Your task to perform on an android device: Add "rayovac triple a" to the cart on target.com, then select checkout. Image 0: 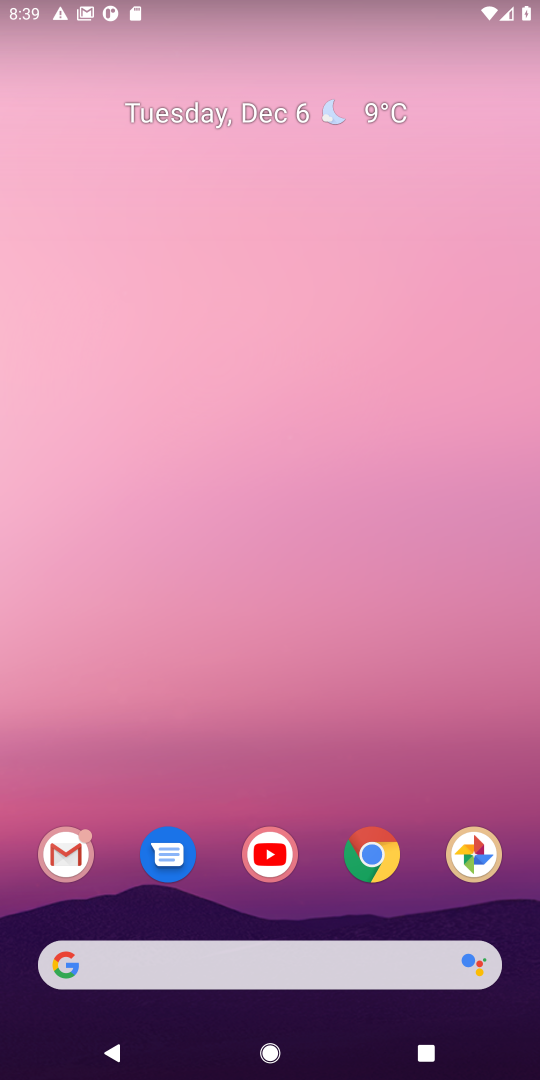
Step 0: click (365, 849)
Your task to perform on an android device: Add "rayovac triple a" to the cart on target.com, then select checkout. Image 1: 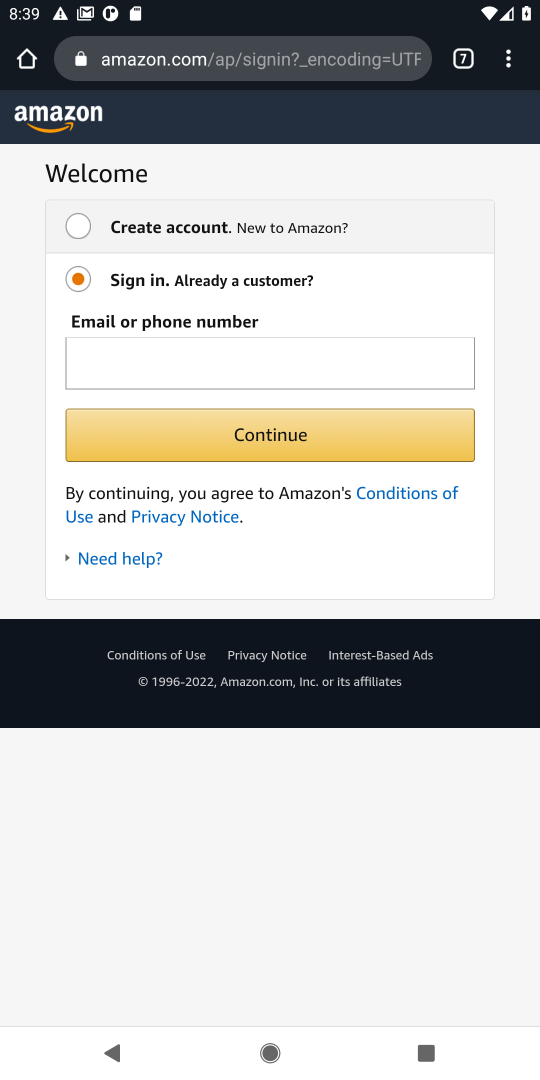
Step 1: click (460, 52)
Your task to perform on an android device: Add "rayovac triple a" to the cart on target.com, then select checkout. Image 2: 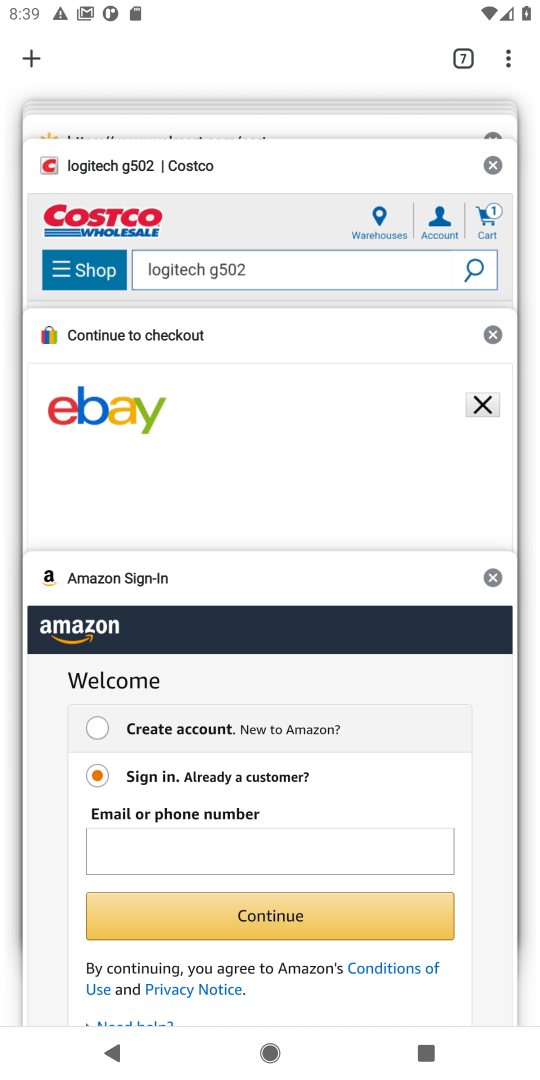
Step 2: drag from (355, 124) to (311, 632)
Your task to perform on an android device: Add "rayovac triple a" to the cart on target.com, then select checkout. Image 3: 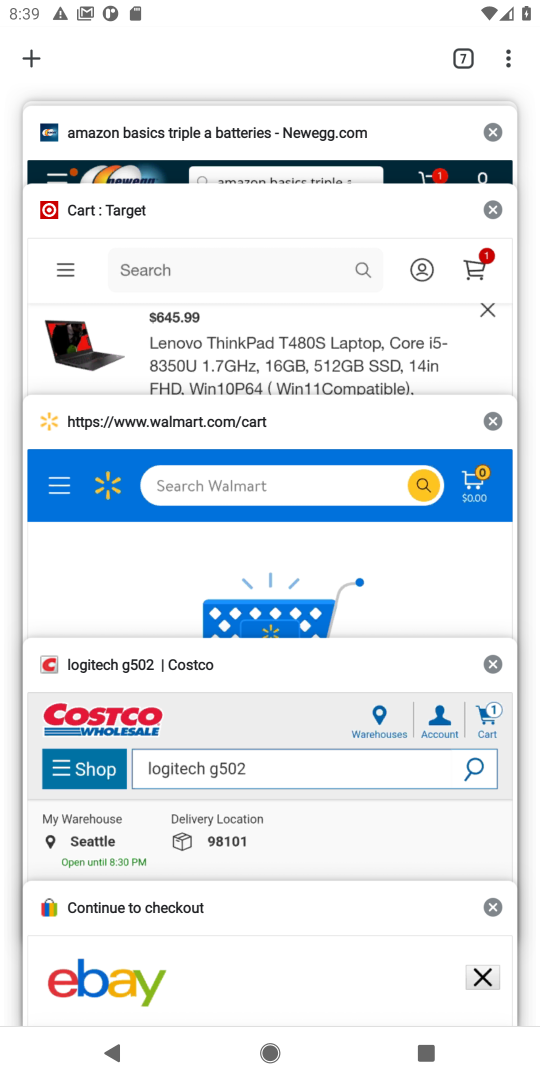
Step 3: click (271, 250)
Your task to perform on an android device: Add "rayovac triple a" to the cart on target.com, then select checkout. Image 4: 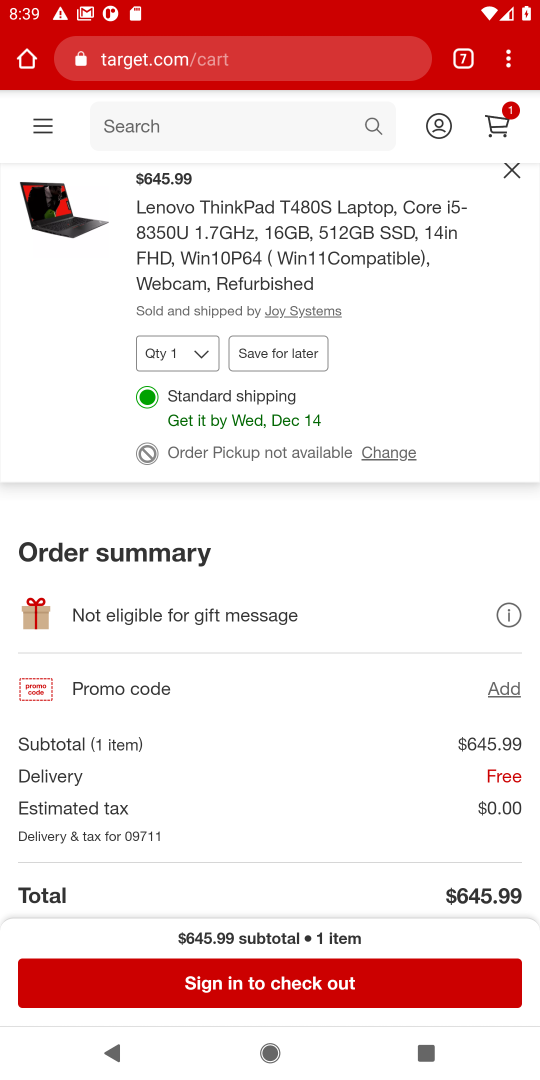
Step 4: click (268, 133)
Your task to perform on an android device: Add "rayovac triple a" to the cart on target.com, then select checkout. Image 5: 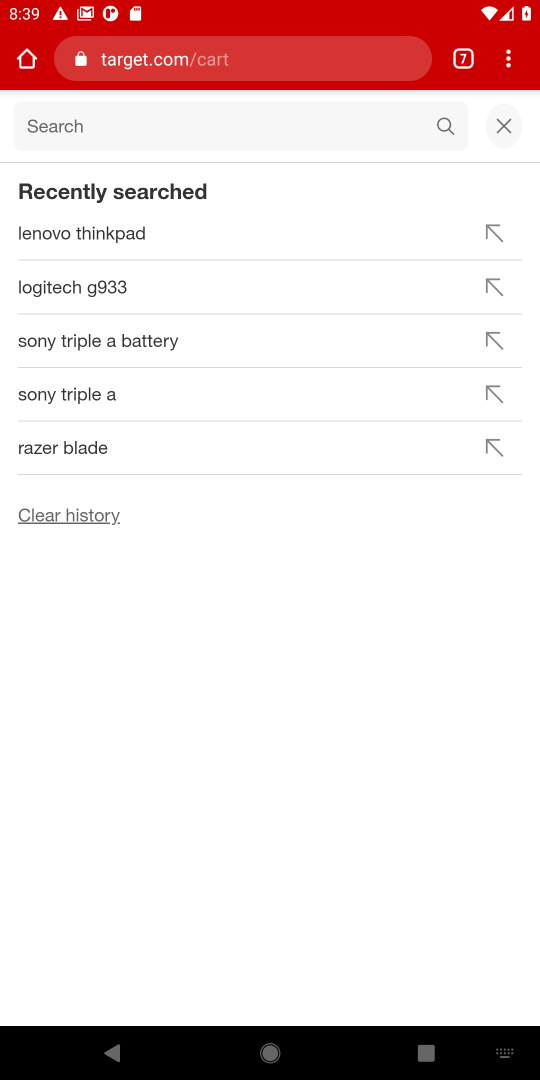
Step 5: type "rayovac triple a"
Your task to perform on an android device: Add "rayovac triple a" to the cart on target.com, then select checkout. Image 6: 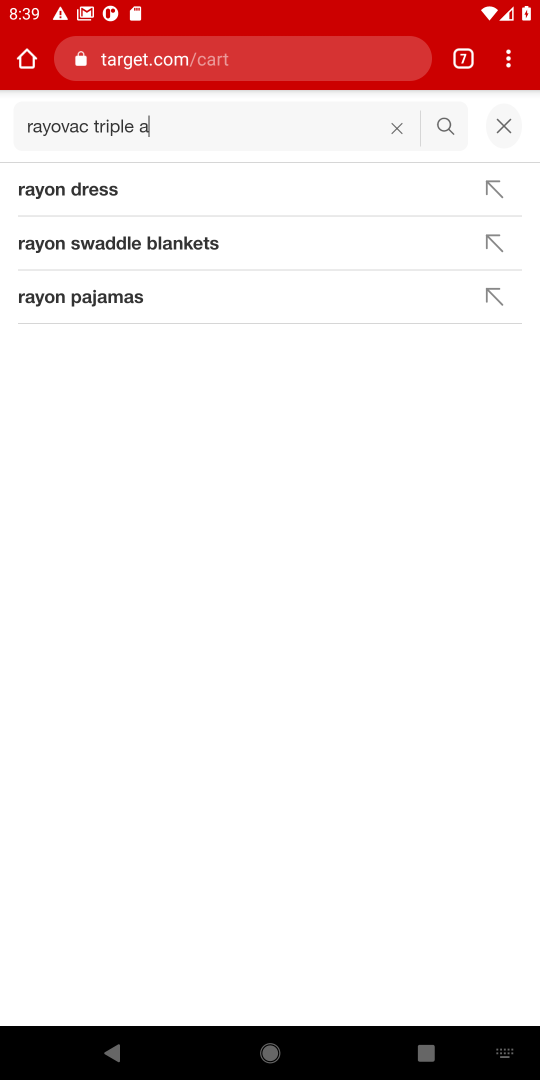
Step 6: click (443, 128)
Your task to perform on an android device: Add "rayovac triple a" to the cart on target.com, then select checkout. Image 7: 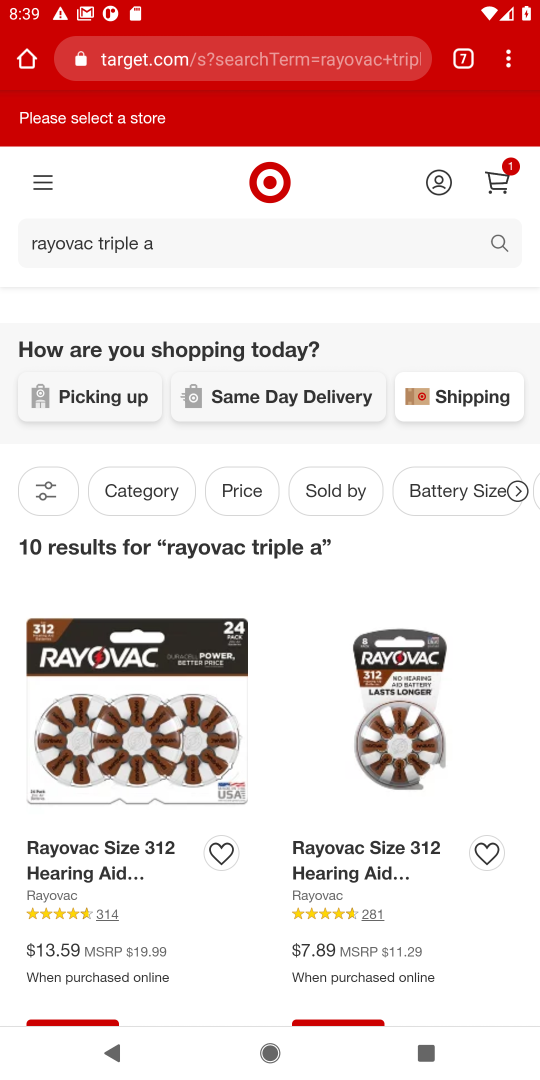
Step 7: drag from (223, 905) to (311, 473)
Your task to perform on an android device: Add "rayovac triple a" to the cart on target.com, then select checkout. Image 8: 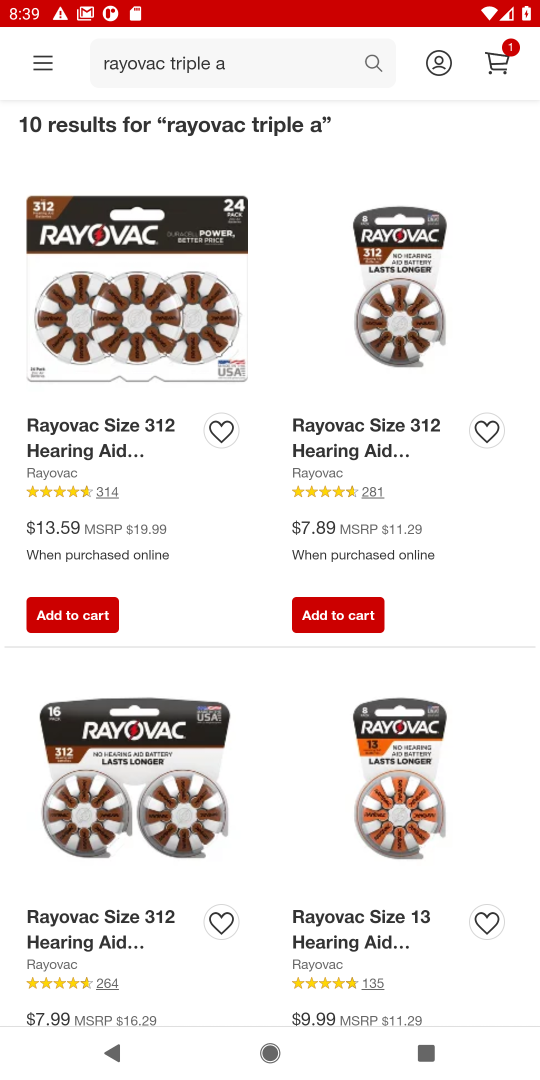
Step 8: drag from (248, 377) to (252, 810)
Your task to perform on an android device: Add "rayovac triple a" to the cart on target.com, then select checkout. Image 9: 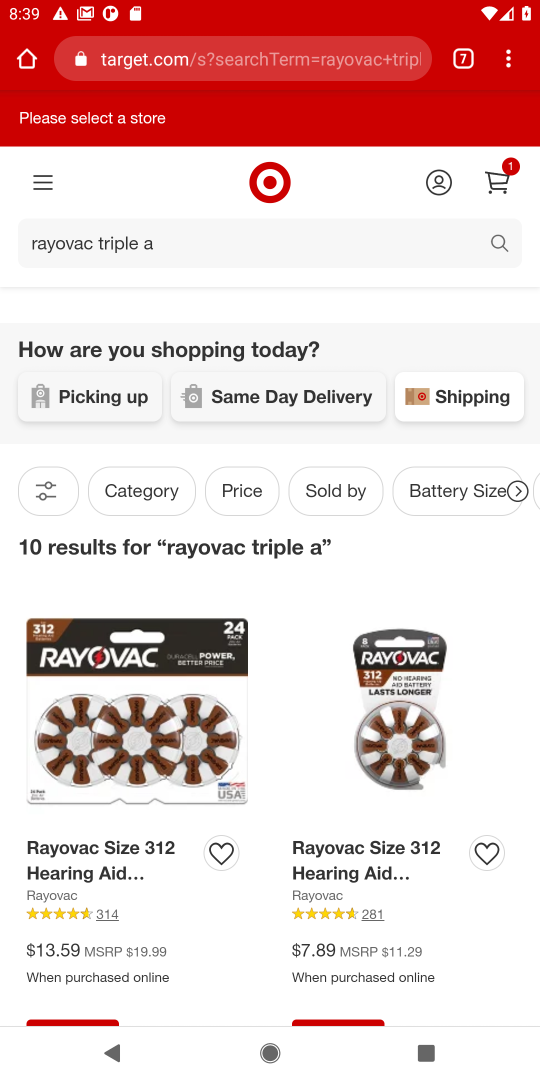
Step 9: click (232, 240)
Your task to perform on an android device: Add "rayovac triple a" to the cart on target.com, then select checkout. Image 10: 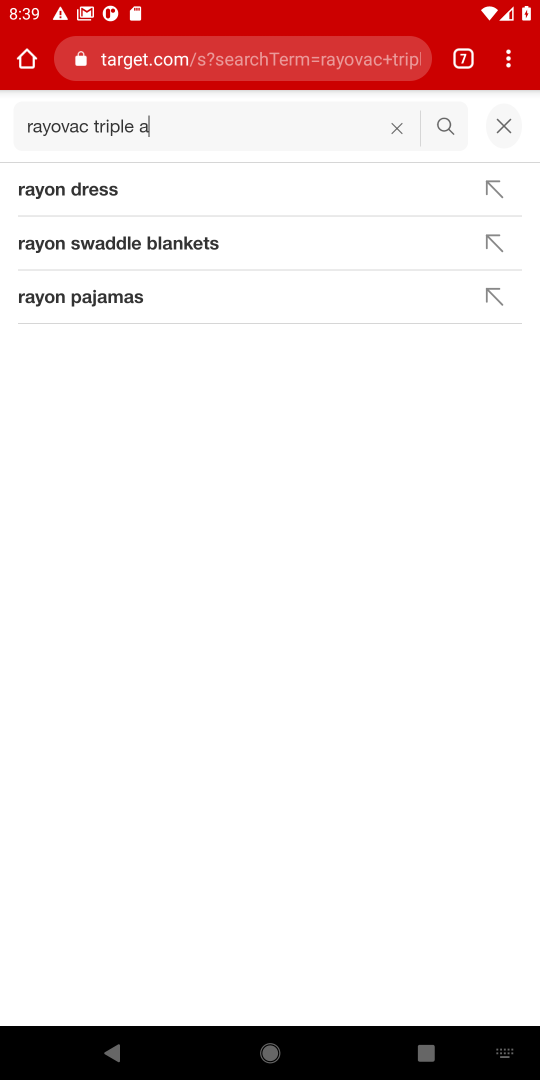
Step 10: type " battery"
Your task to perform on an android device: Add "rayovac triple a" to the cart on target.com, then select checkout. Image 11: 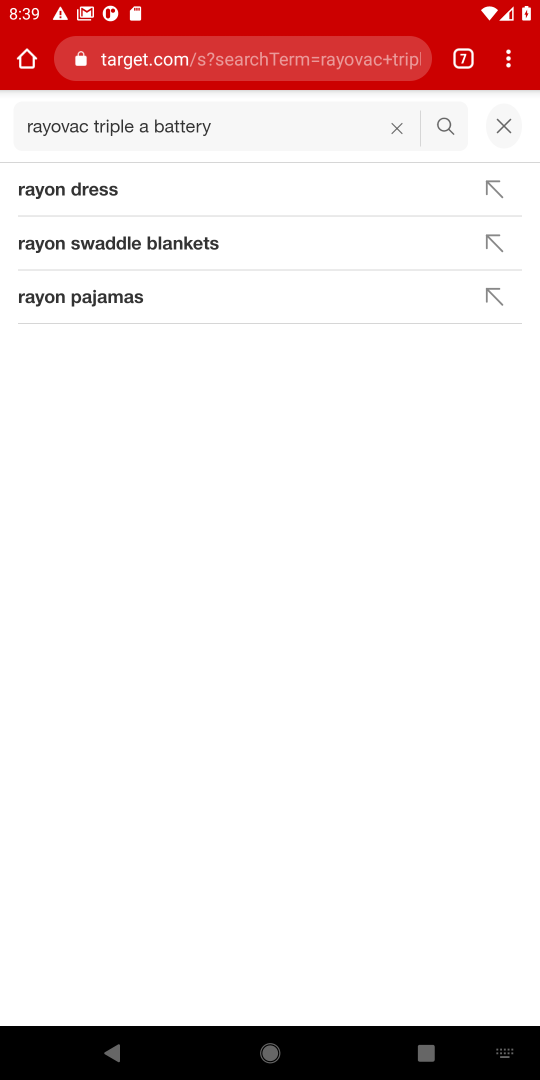
Step 11: click (447, 120)
Your task to perform on an android device: Add "rayovac triple a" to the cart on target.com, then select checkout. Image 12: 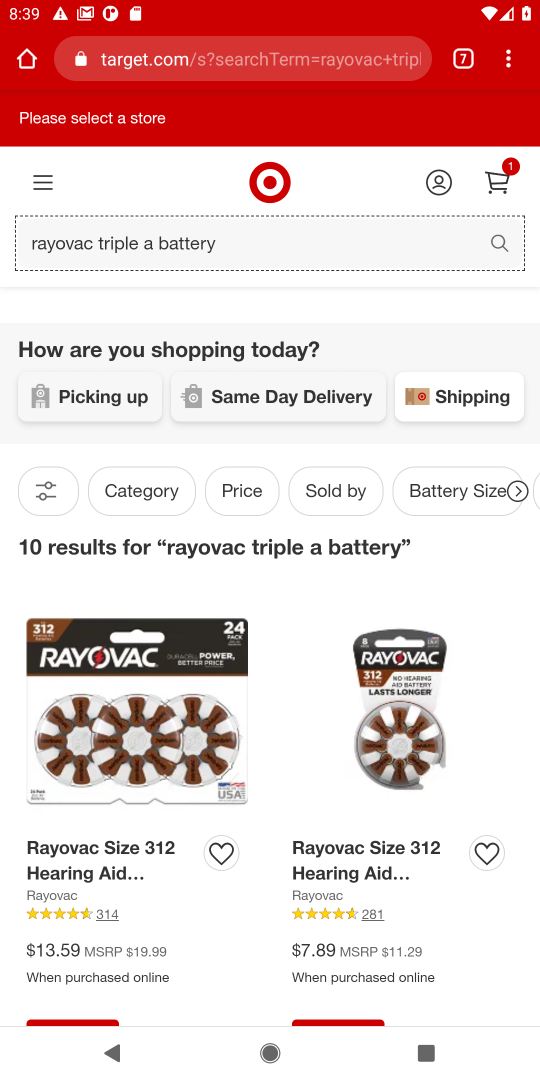
Step 12: drag from (155, 992) to (303, 440)
Your task to perform on an android device: Add "rayovac triple a" to the cart on target.com, then select checkout. Image 13: 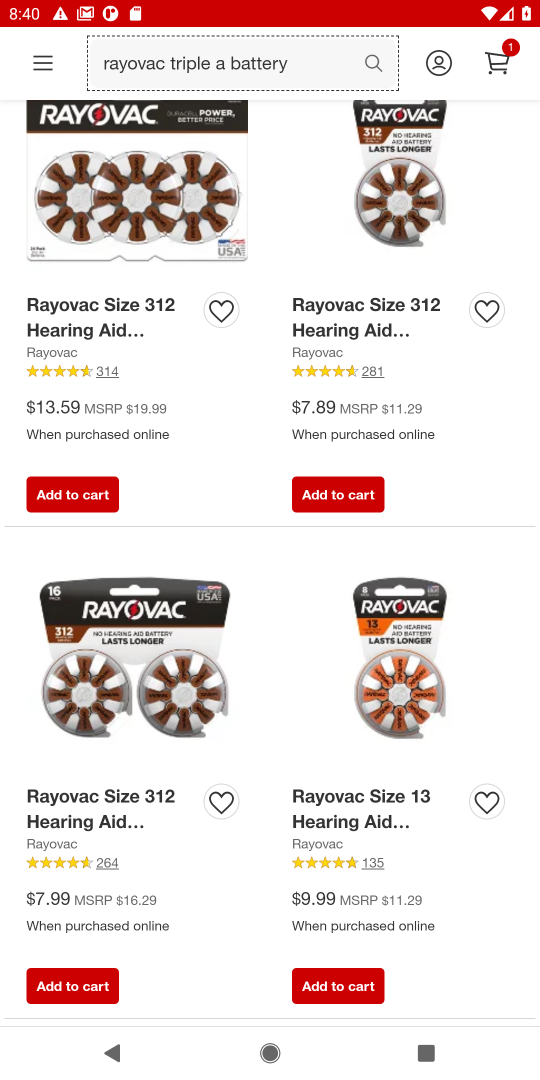
Step 13: drag from (215, 782) to (344, 332)
Your task to perform on an android device: Add "rayovac triple a" to the cart on target.com, then select checkout. Image 14: 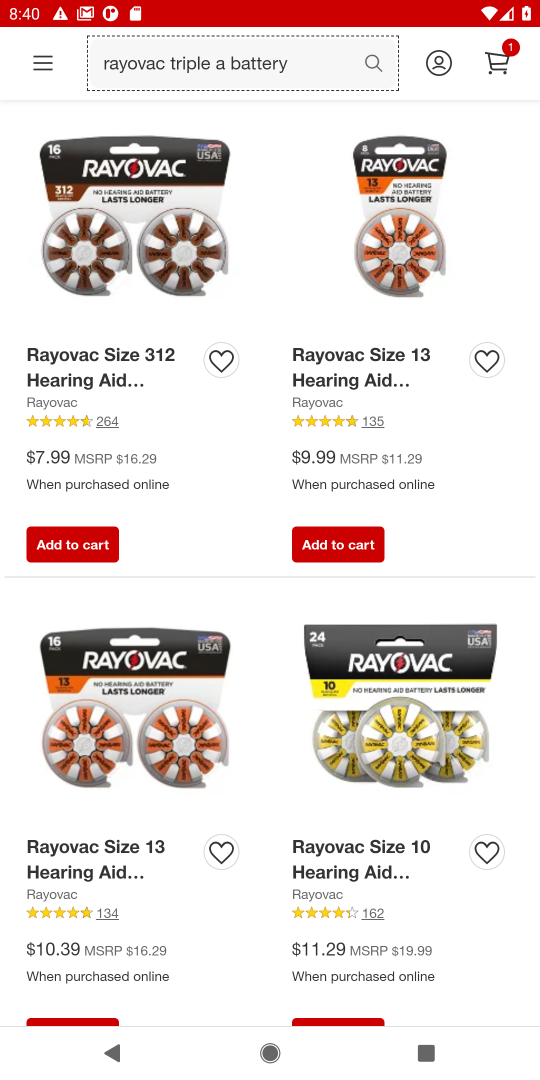
Step 14: drag from (303, 698) to (448, 380)
Your task to perform on an android device: Add "rayovac triple a" to the cart on target.com, then select checkout. Image 15: 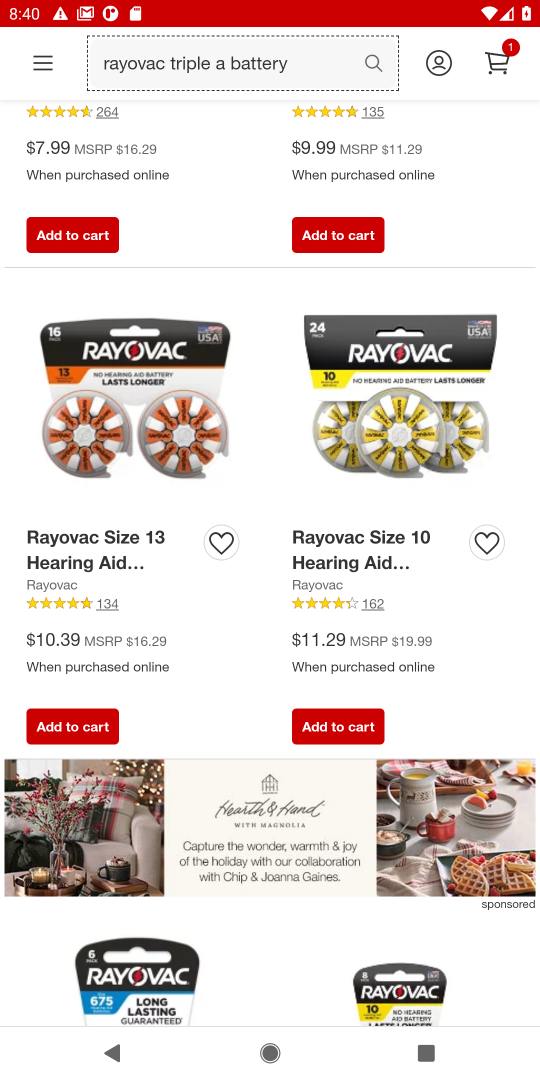
Step 15: drag from (252, 834) to (324, 471)
Your task to perform on an android device: Add "rayovac triple a" to the cart on target.com, then select checkout. Image 16: 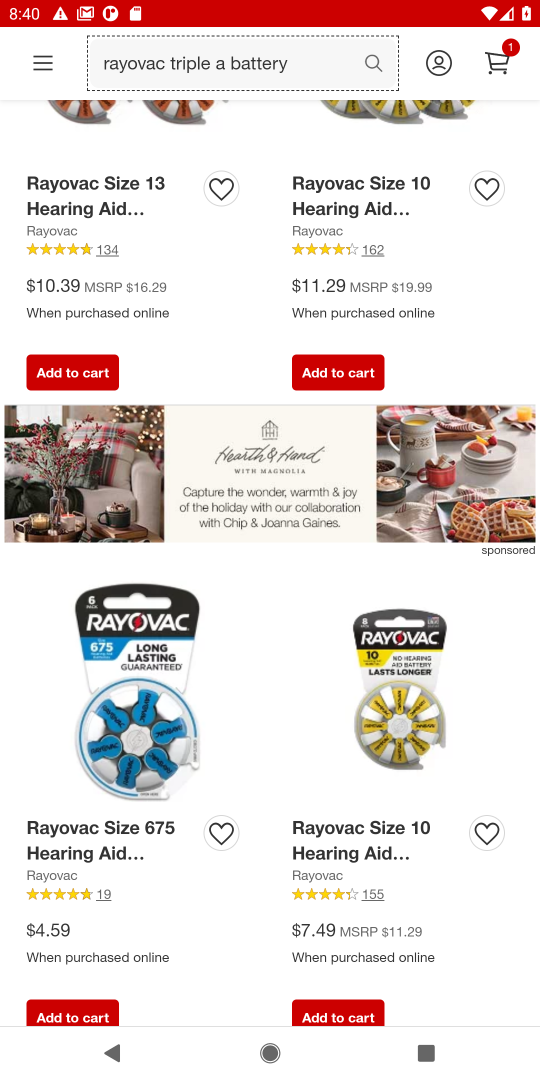
Step 16: drag from (255, 331) to (211, 921)
Your task to perform on an android device: Add "rayovac triple a" to the cart on target.com, then select checkout. Image 17: 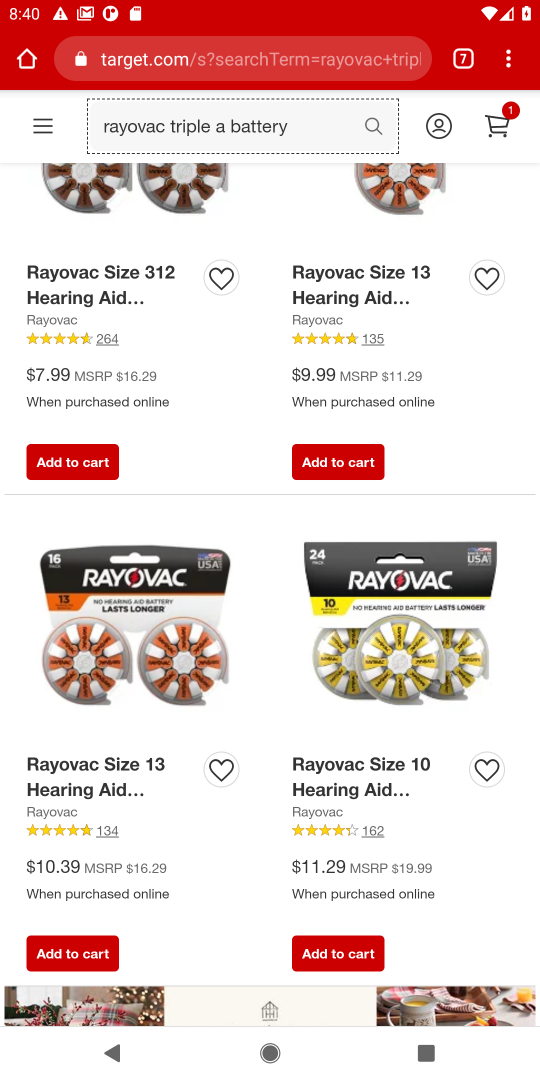
Step 17: click (364, 125)
Your task to perform on an android device: Add "rayovac triple a" to the cart on target.com, then select checkout. Image 18: 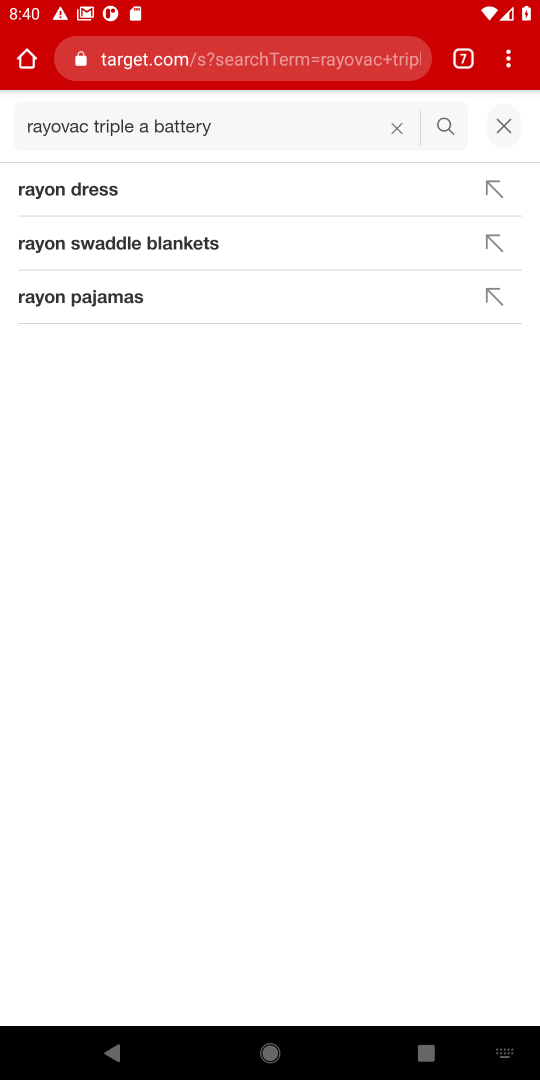
Step 18: click (439, 126)
Your task to perform on an android device: Add "rayovac triple a" to the cart on target.com, then select checkout. Image 19: 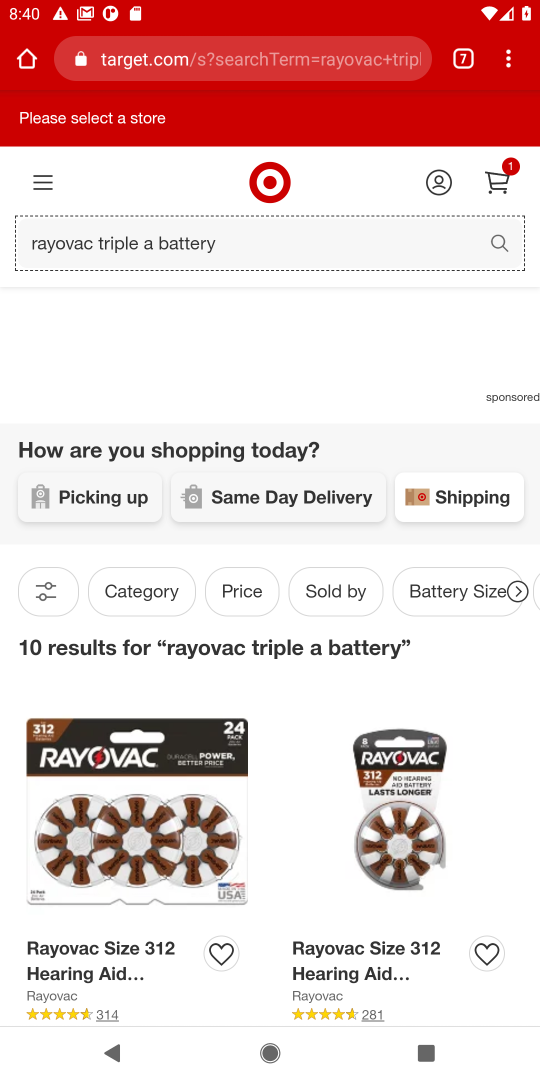
Step 19: click (111, 944)
Your task to perform on an android device: Add "rayovac triple a" to the cart on target.com, then select checkout. Image 20: 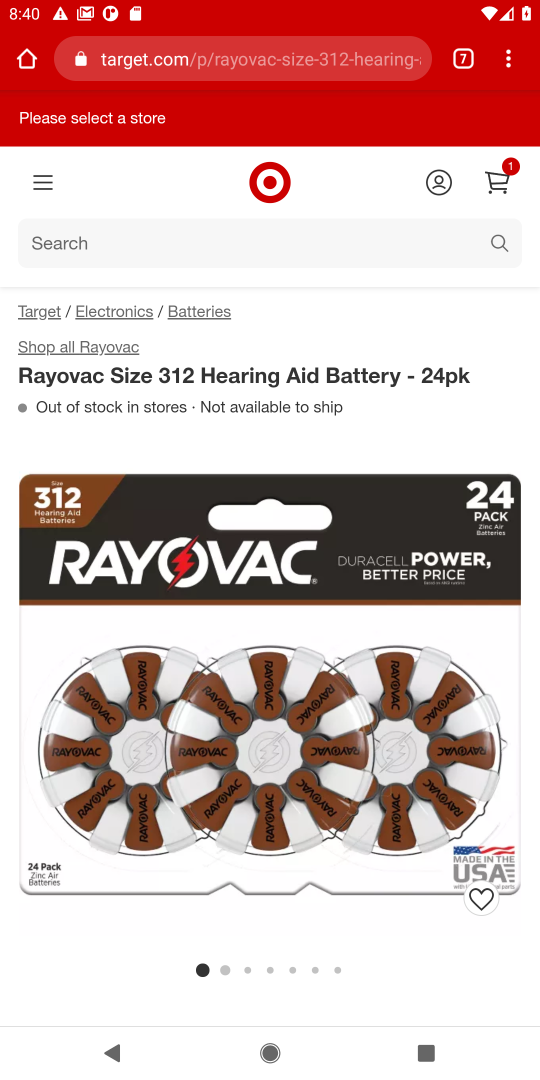
Step 20: drag from (268, 930) to (511, 210)
Your task to perform on an android device: Add "rayovac triple a" to the cart on target.com, then select checkout. Image 21: 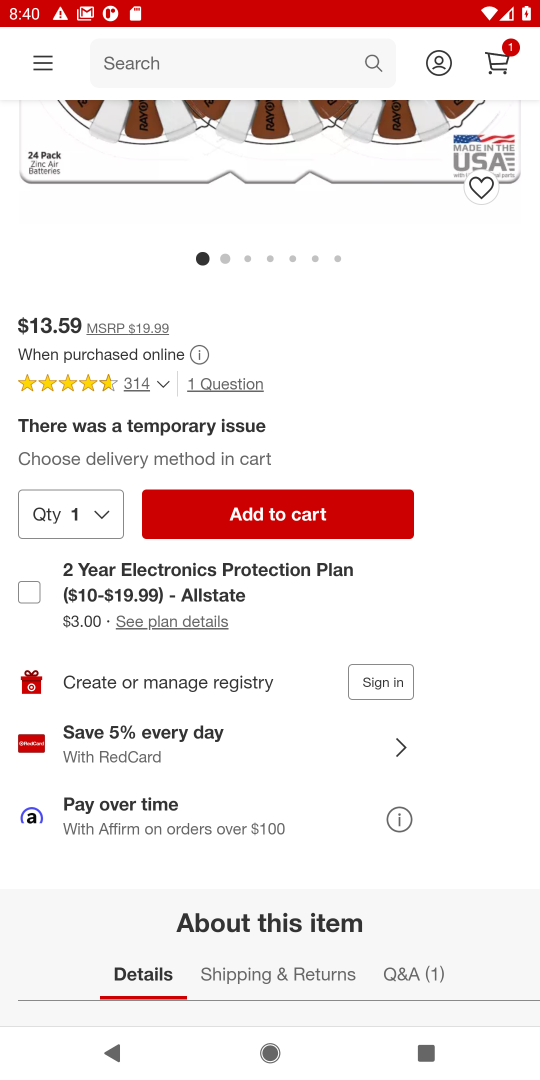
Step 21: click (320, 506)
Your task to perform on an android device: Add "rayovac triple a" to the cart on target.com, then select checkout. Image 22: 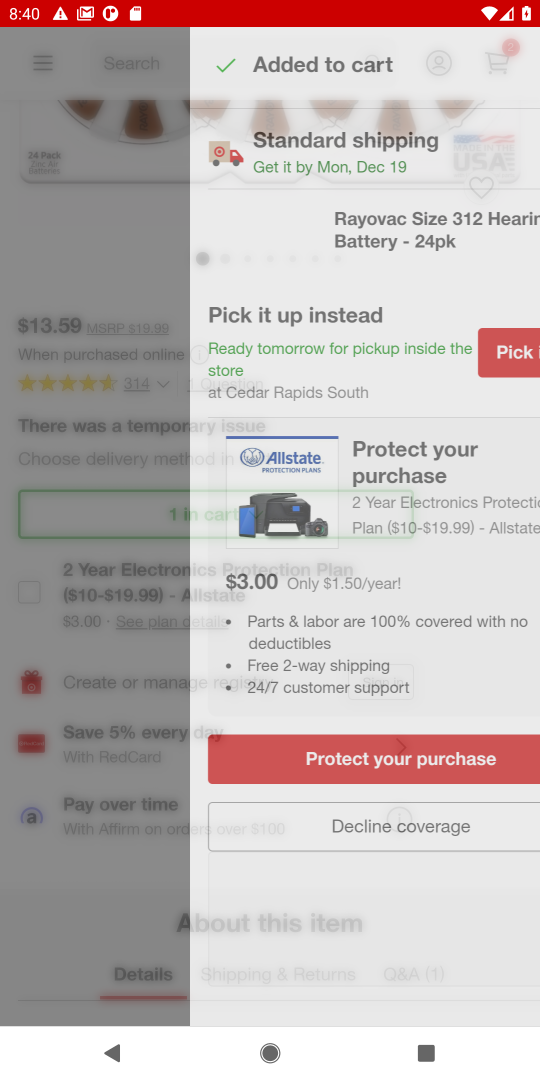
Step 22: task complete